Your task to perform on an android device: turn off wifi Image 0: 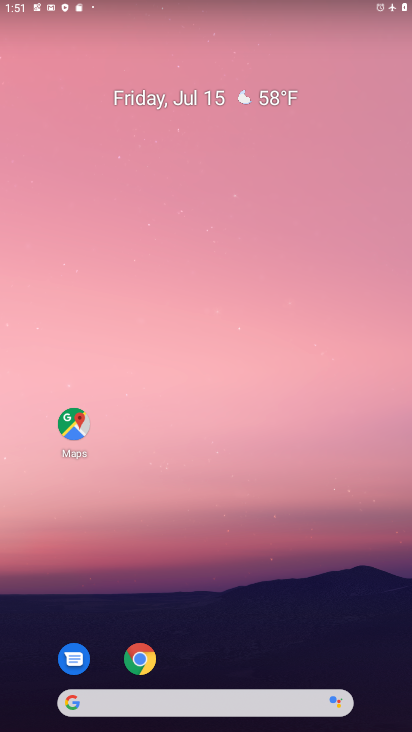
Step 0: drag from (231, 730) to (198, 328)
Your task to perform on an android device: turn off wifi Image 1: 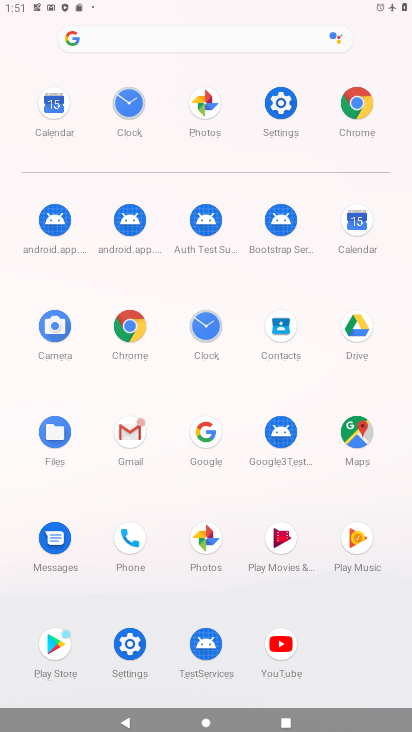
Step 1: click (281, 101)
Your task to perform on an android device: turn off wifi Image 2: 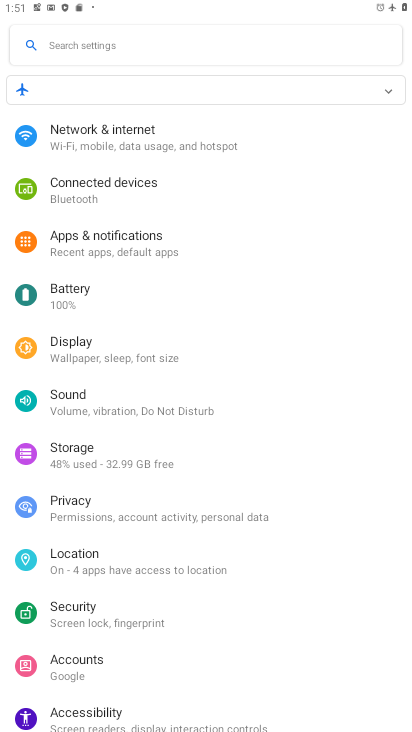
Step 2: click (97, 137)
Your task to perform on an android device: turn off wifi Image 3: 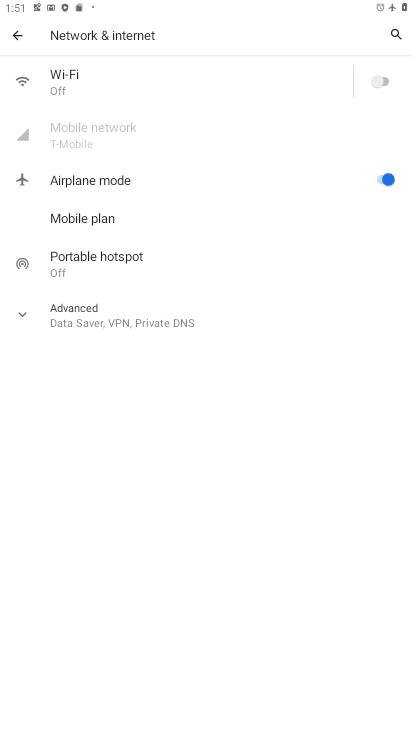
Step 3: task complete